Your task to perform on an android device: What is the recent news? Image 0: 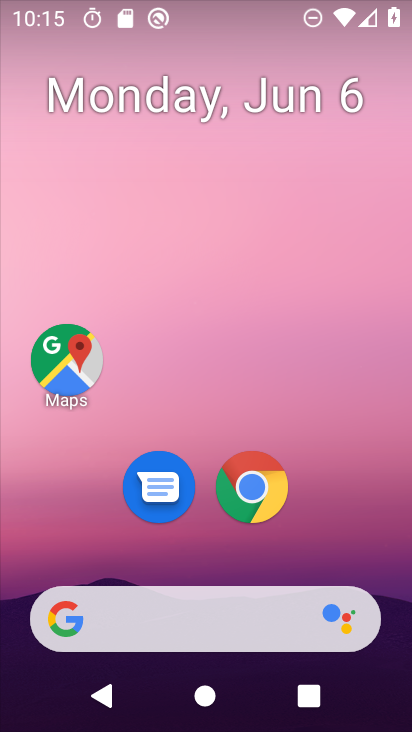
Step 0: drag from (397, 630) to (293, 40)
Your task to perform on an android device: What is the recent news? Image 1: 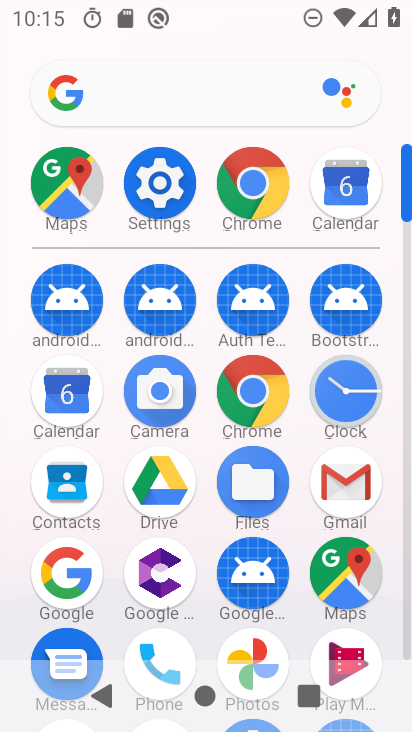
Step 1: click (248, 641)
Your task to perform on an android device: What is the recent news? Image 2: 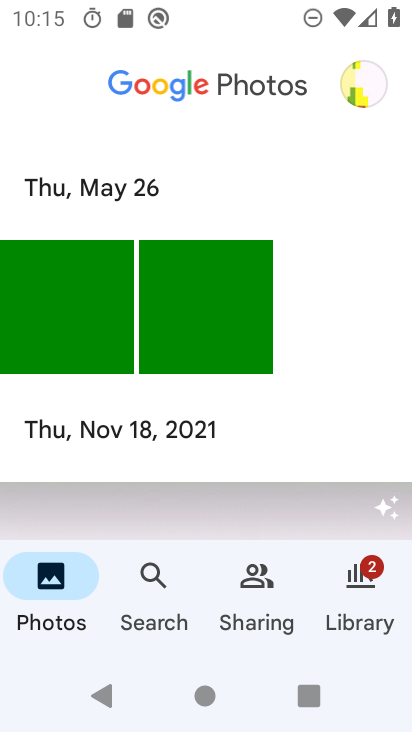
Step 2: click (90, 325)
Your task to perform on an android device: What is the recent news? Image 3: 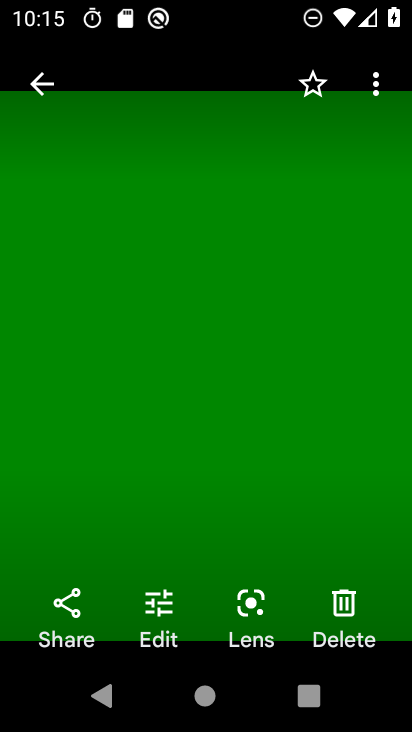
Step 3: task complete